Your task to perform on an android device: Open the calendar and show me this week's events? Image 0: 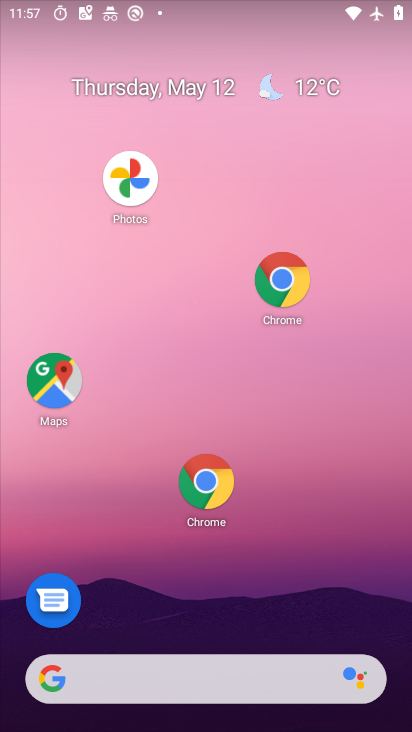
Step 0: drag from (350, 537) to (204, 75)
Your task to perform on an android device: Open the calendar and show me this week's events? Image 1: 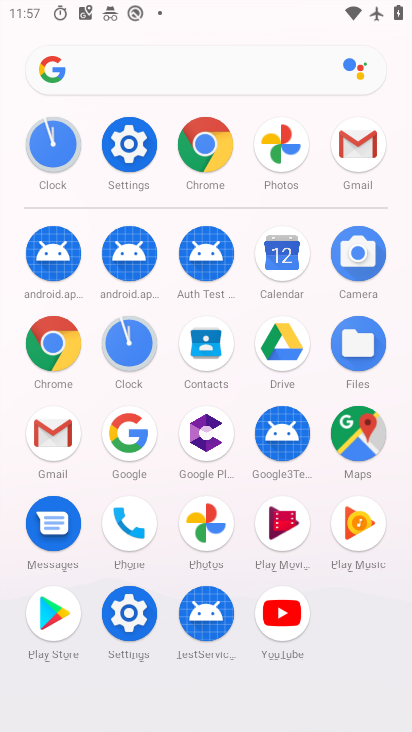
Step 1: click (269, 258)
Your task to perform on an android device: Open the calendar and show me this week's events? Image 2: 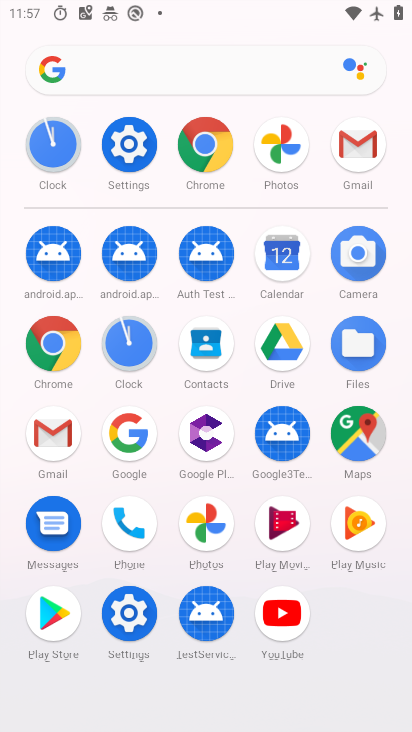
Step 2: click (270, 258)
Your task to perform on an android device: Open the calendar and show me this week's events? Image 3: 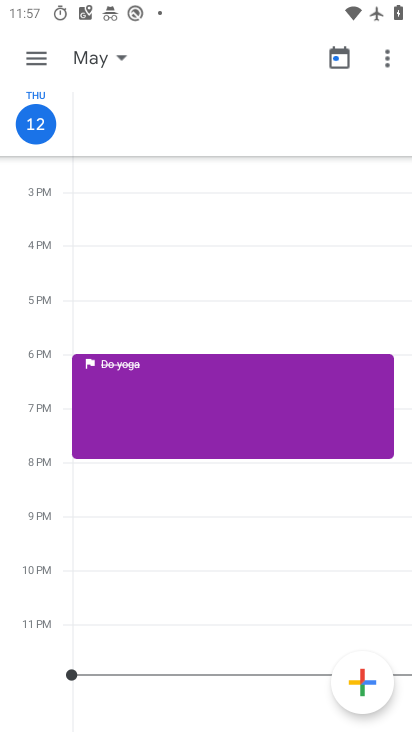
Step 3: click (116, 50)
Your task to perform on an android device: Open the calendar and show me this week's events? Image 4: 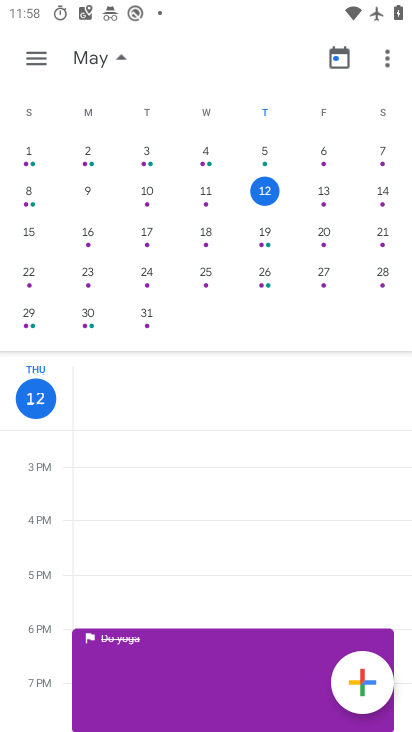
Step 4: drag from (249, 381) to (153, 48)
Your task to perform on an android device: Open the calendar and show me this week's events? Image 5: 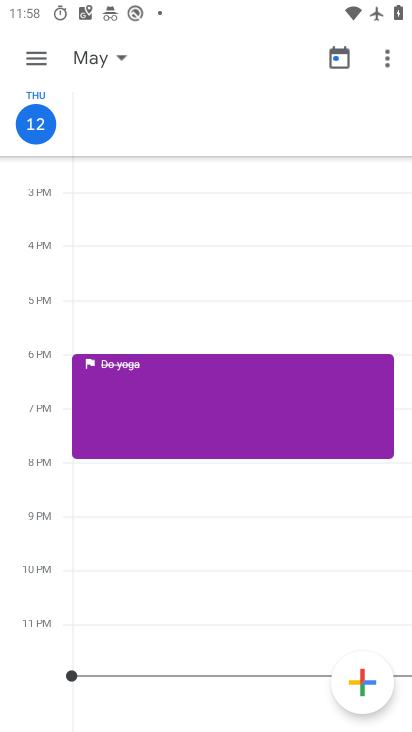
Step 5: drag from (185, 471) to (83, 100)
Your task to perform on an android device: Open the calendar and show me this week's events? Image 6: 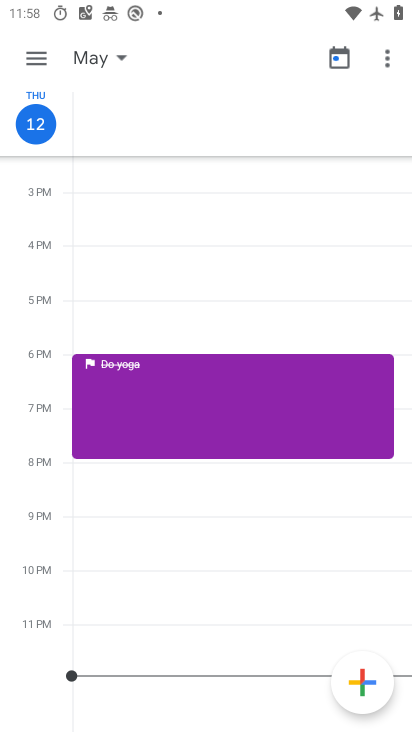
Step 6: drag from (129, 265) to (135, 537)
Your task to perform on an android device: Open the calendar and show me this week's events? Image 7: 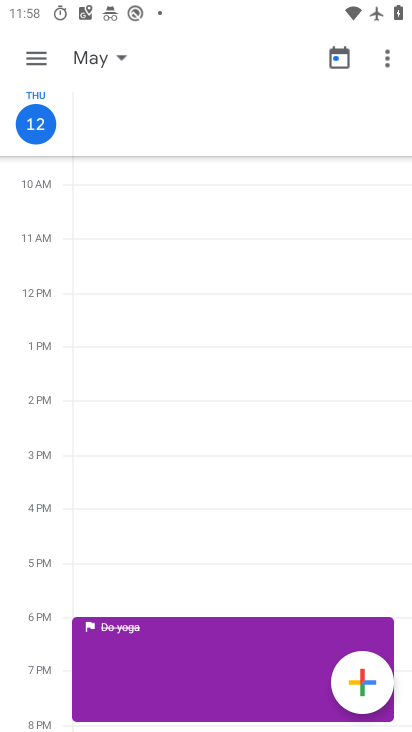
Step 7: drag from (84, 259) to (132, 570)
Your task to perform on an android device: Open the calendar and show me this week's events? Image 8: 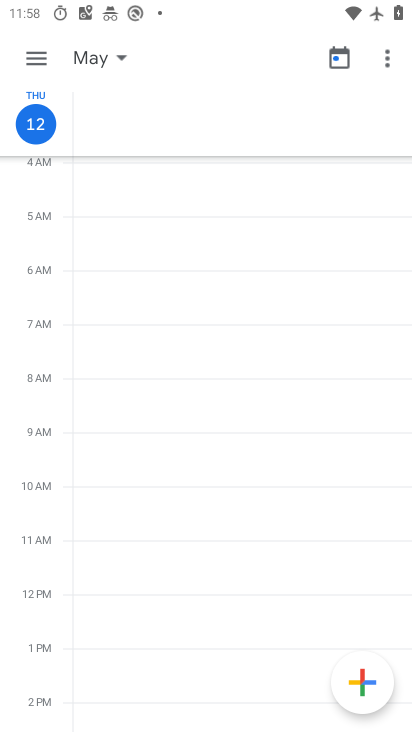
Step 8: drag from (116, 304) to (191, 583)
Your task to perform on an android device: Open the calendar and show me this week's events? Image 9: 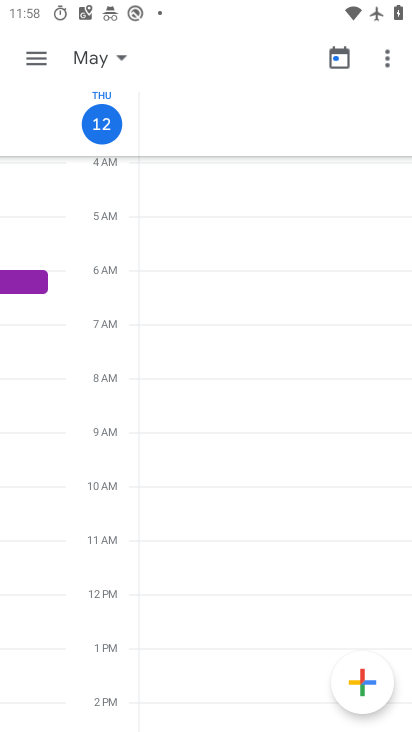
Step 9: drag from (157, 204) to (170, 559)
Your task to perform on an android device: Open the calendar and show me this week's events? Image 10: 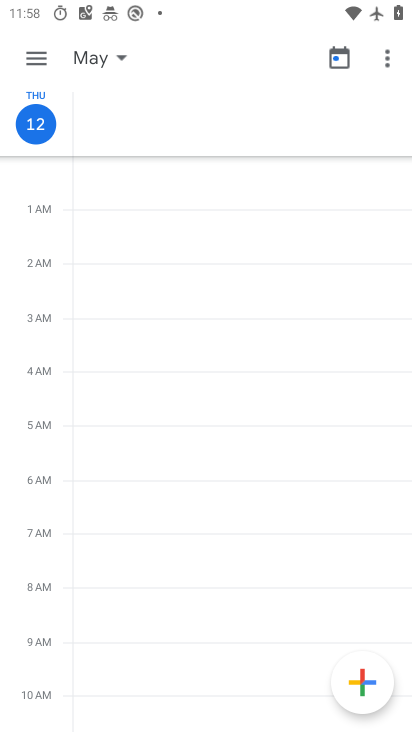
Step 10: click (44, 69)
Your task to perform on an android device: Open the calendar and show me this week's events? Image 11: 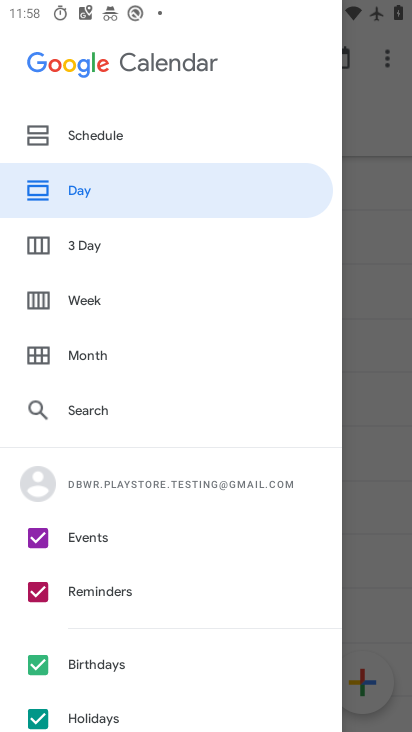
Step 11: click (106, 144)
Your task to perform on an android device: Open the calendar and show me this week's events? Image 12: 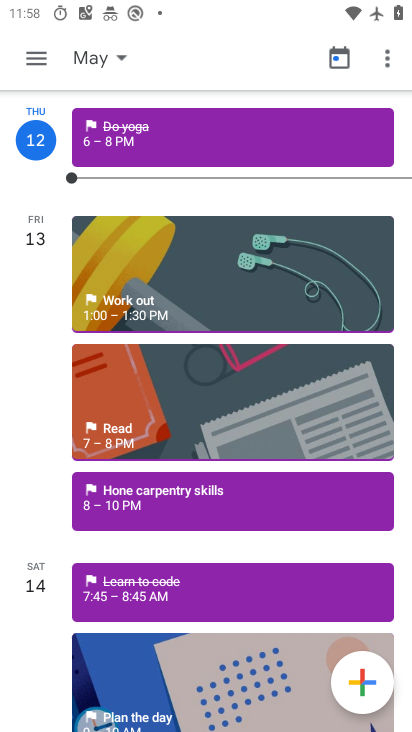
Step 12: drag from (234, 390) to (216, 97)
Your task to perform on an android device: Open the calendar and show me this week's events? Image 13: 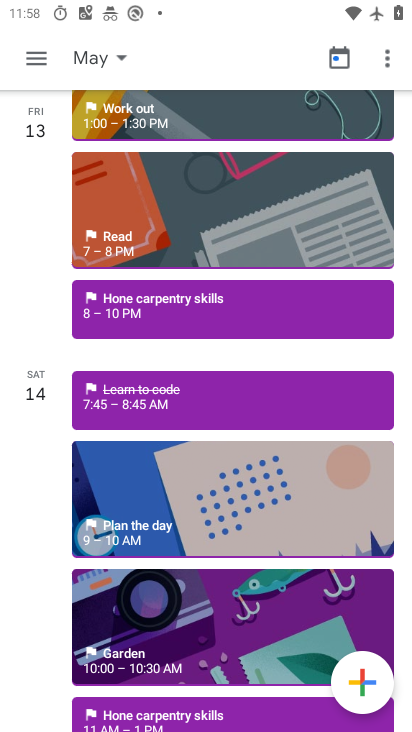
Step 13: drag from (253, 385) to (200, 115)
Your task to perform on an android device: Open the calendar and show me this week's events? Image 14: 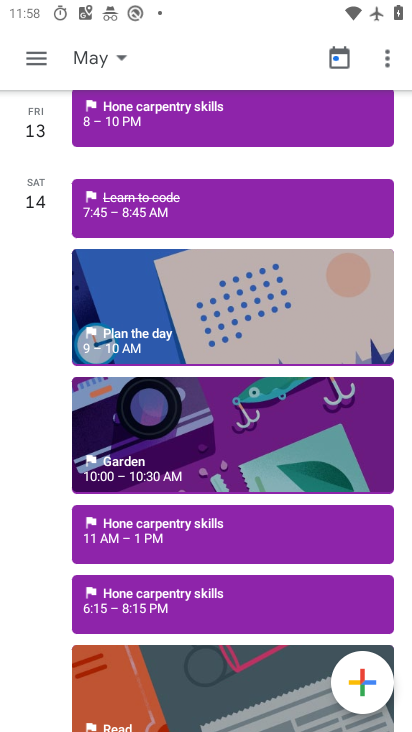
Step 14: drag from (234, 457) to (196, 21)
Your task to perform on an android device: Open the calendar and show me this week's events? Image 15: 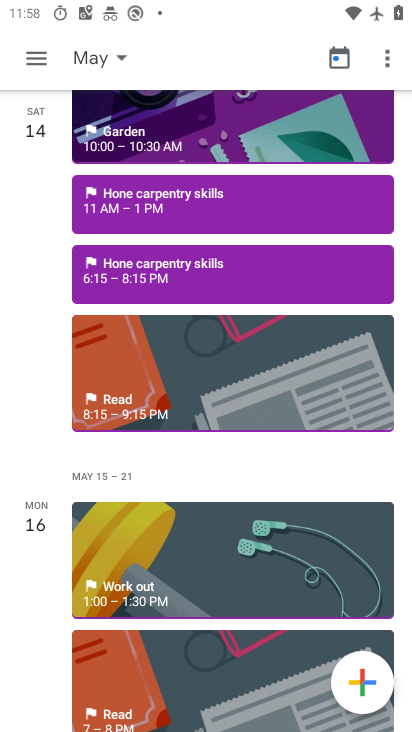
Step 15: drag from (168, 454) to (79, 6)
Your task to perform on an android device: Open the calendar and show me this week's events? Image 16: 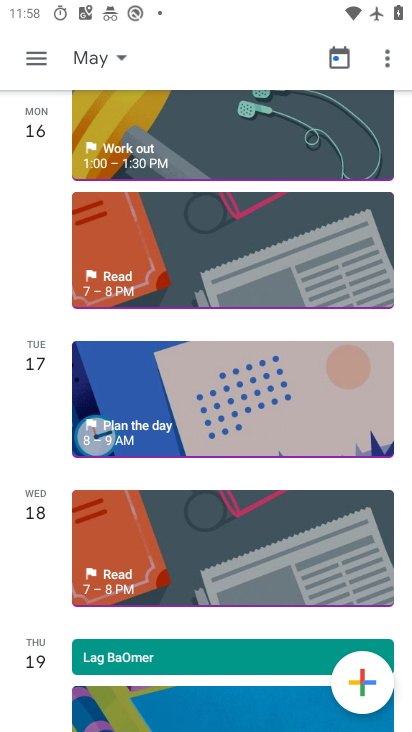
Step 16: drag from (138, 213) to (171, 630)
Your task to perform on an android device: Open the calendar and show me this week's events? Image 17: 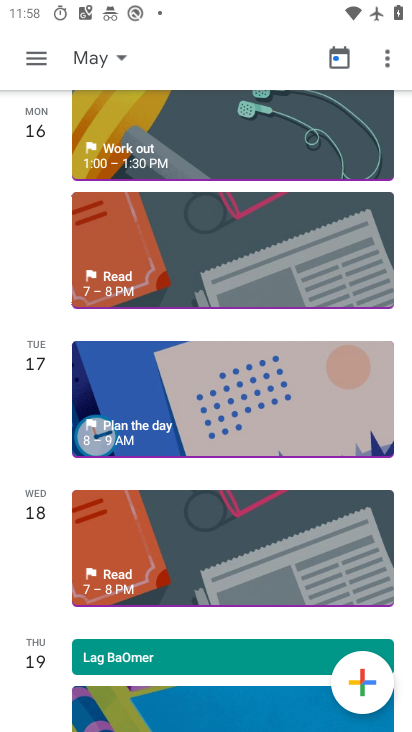
Step 17: drag from (117, 356) to (179, 720)
Your task to perform on an android device: Open the calendar and show me this week's events? Image 18: 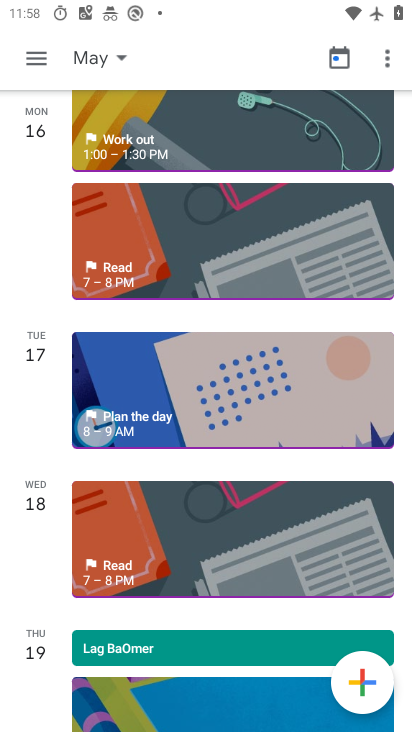
Step 18: drag from (166, 281) to (183, 403)
Your task to perform on an android device: Open the calendar and show me this week's events? Image 19: 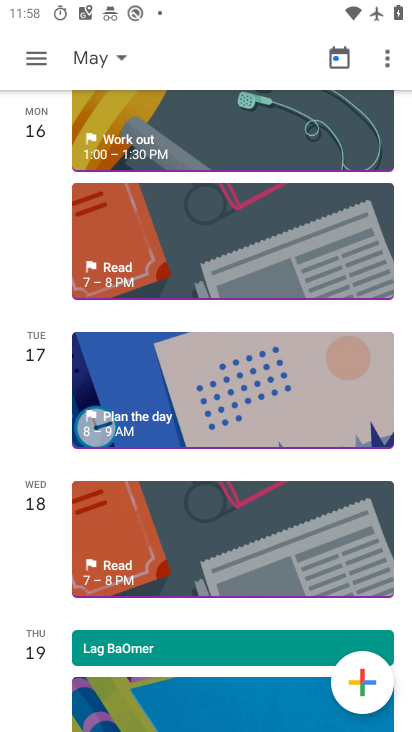
Step 19: drag from (149, 204) to (149, 451)
Your task to perform on an android device: Open the calendar and show me this week's events? Image 20: 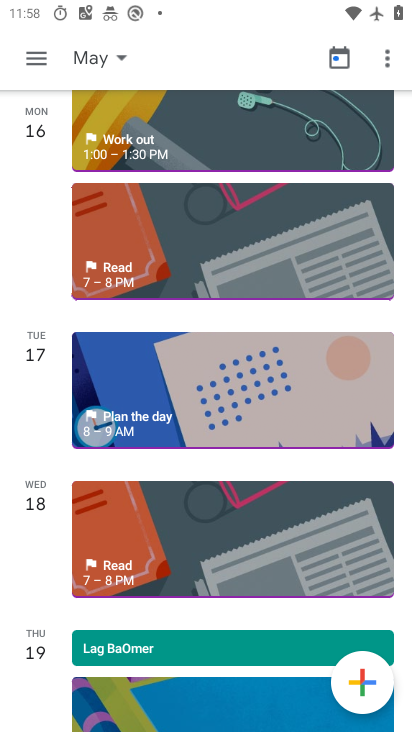
Step 20: drag from (115, 245) to (129, 326)
Your task to perform on an android device: Open the calendar and show me this week's events? Image 21: 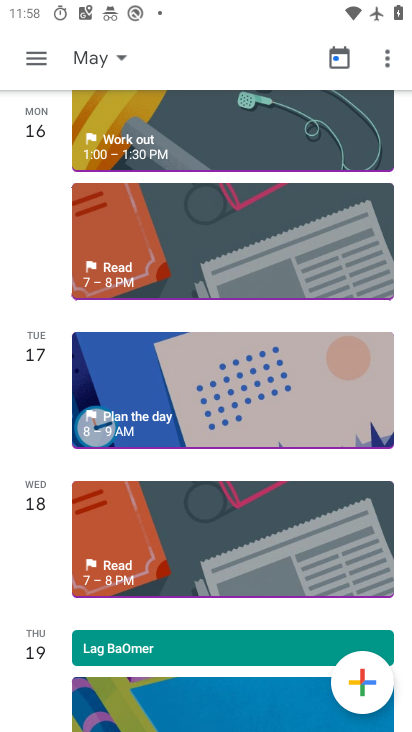
Step 21: drag from (121, 226) to (203, 472)
Your task to perform on an android device: Open the calendar and show me this week's events? Image 22: 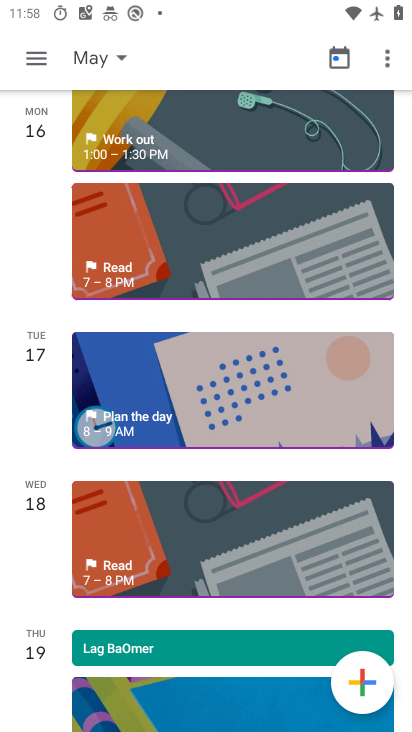
Step 22: click (195, 435)
Your task to perform on an android device: Open the calendar and show me this week's events? Image 23: 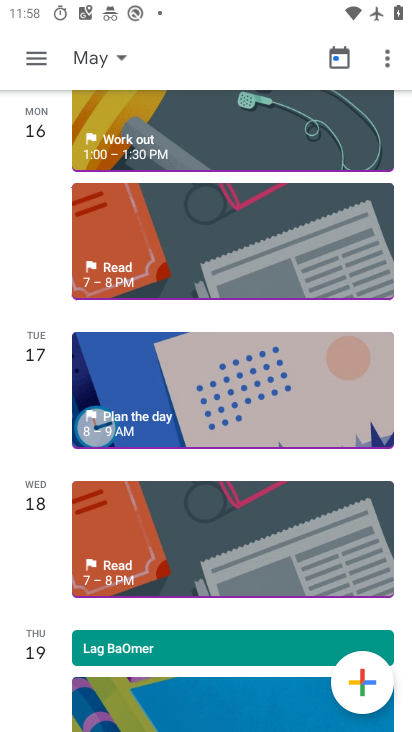
Step 23: drag from (165, 226) to (185, 387)
Your task to perform on an android device: Open the calendar and show me this week's events? Image 24: 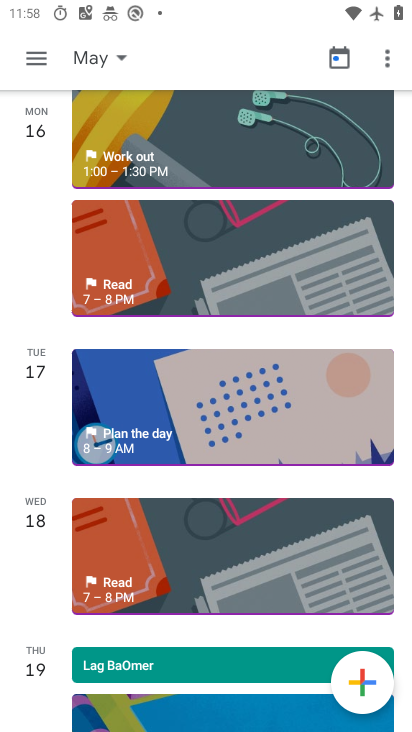
Step 24: drag from (206, 213) to (206, 278)
Your task to perform on an android device: Open the calendar and show me this week's events? Image 25: 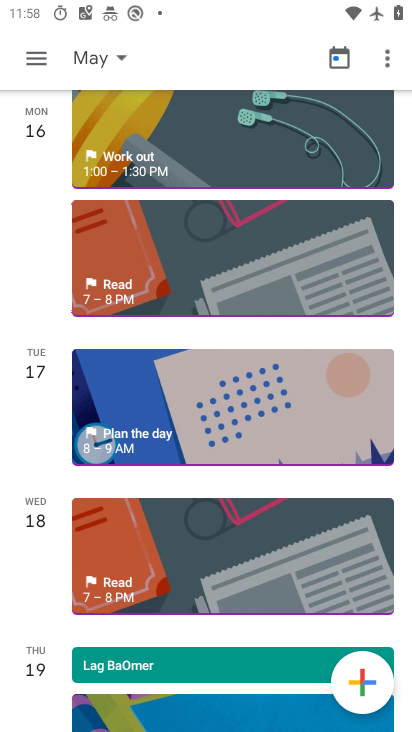
Step 25: drag from (200, 82) to (203, 341)
Your task to perform on an android device: Open the calendar and show me this week's events? Image 26: 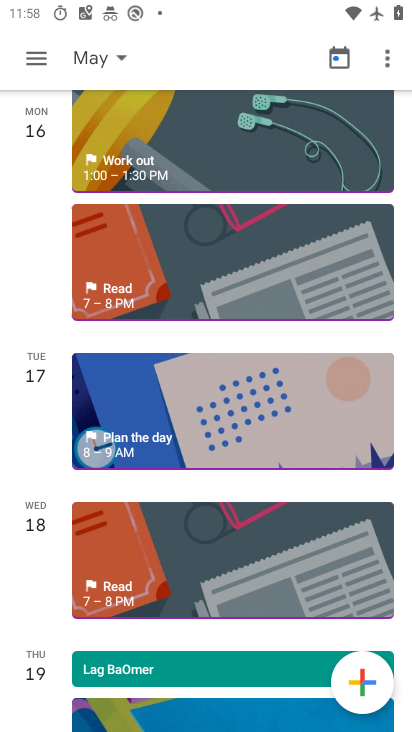
Step 26: drag from (177, 220) to (182, 420)
Your task to perform on an android device: Open the calendar and show me this week's events? Image 27: 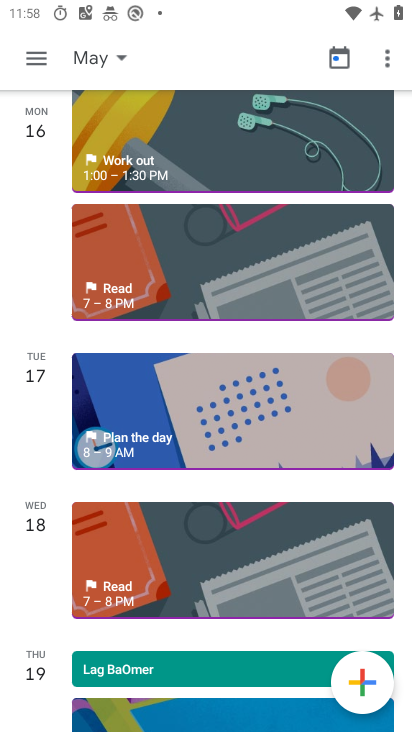
Step 27: drag from (150, 274) to (167, 514)
Your task to perform on an android device: Open the calendar and show me this week's events? Image 28: 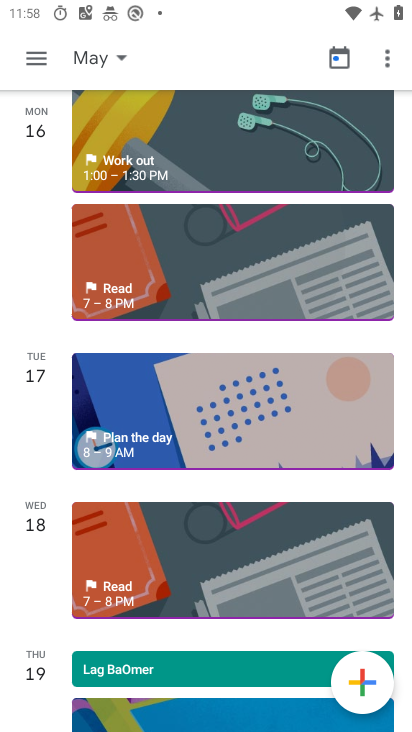
Step 28: drag from (167, 285) to (229, 680)
Your task to perform on an android device: Open the calendar and show me this week's events? Image 29: 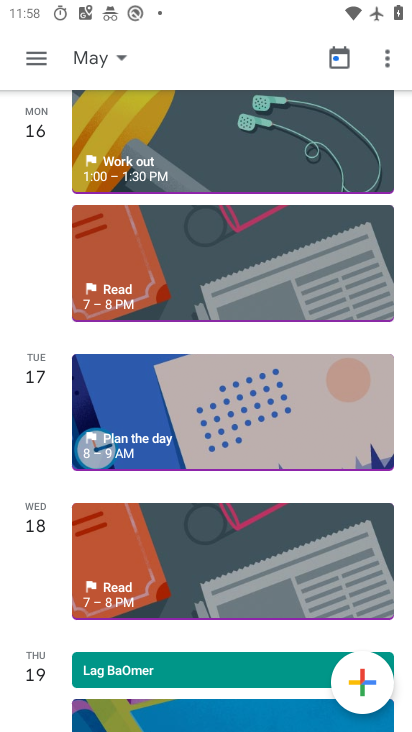
Step 29: drag from (245, 243) to (255, 504)
Your task to perform on an android device: Open the calendar and show me this week's events? Image 30: 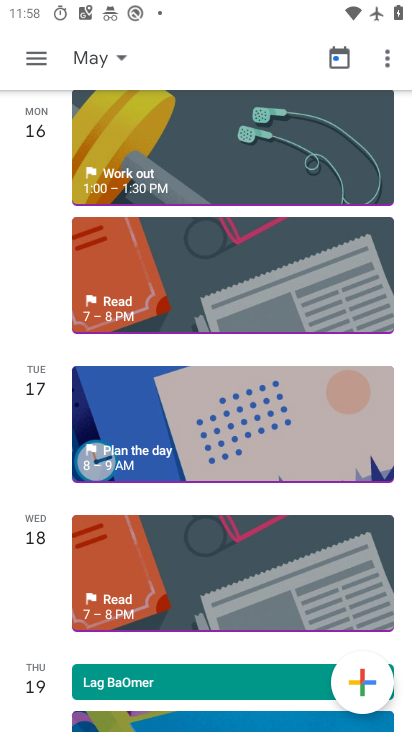
Step 30: drag from (176, 261) to (260, 495)
Your task to perform on an android device: Open the calendar and show me this week's events? Image 31: 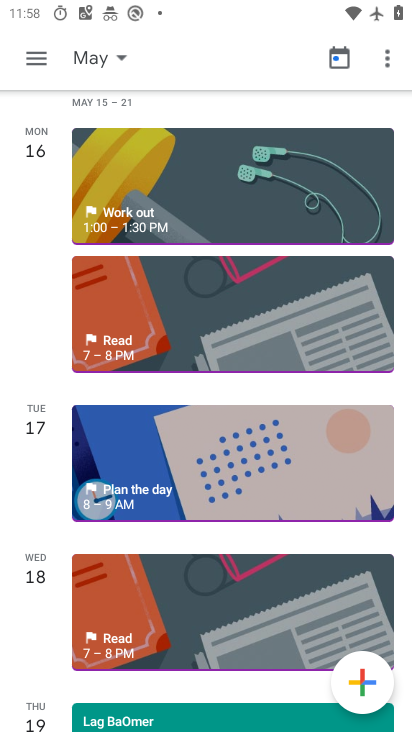
Step 31: drag from (227, 185) to (235, 525)
Your task to perform on an android device: Open the calendar and show me this week's events? Image 32: 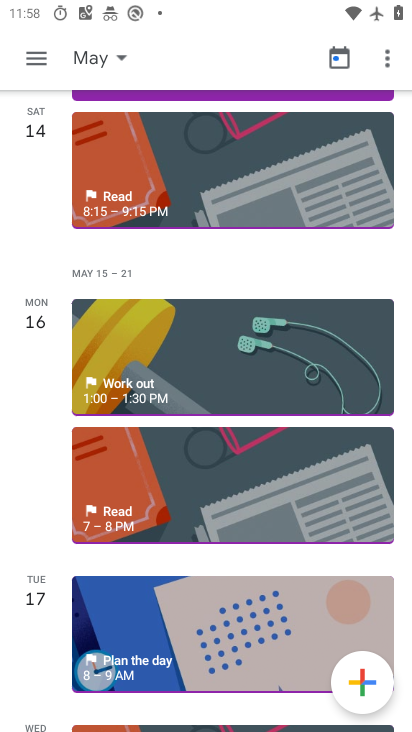
Step 32: drag from (189, 182) to (204, 555)
Your task to perform on an android device: Open the calendar and show me this week's events? Image 33: 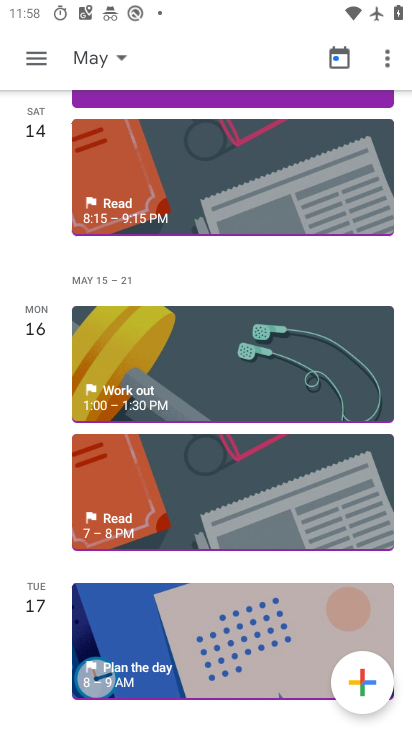
Step 33: drag from (89, 207) to (175, 629)
Your task to perform on an android device: Open the calendar and show me this week's events? Image 34: 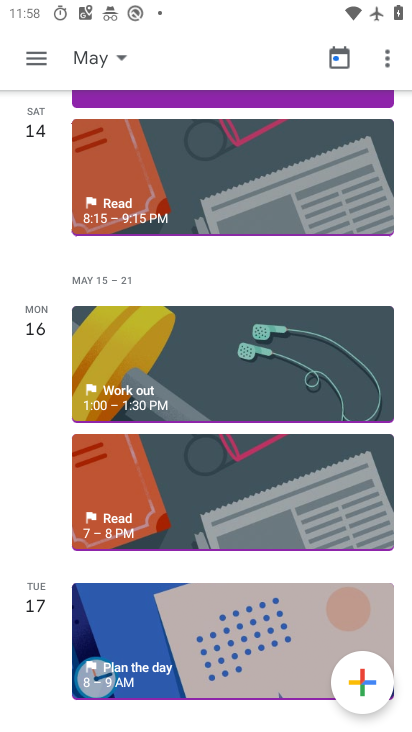
Step 34: drag from (125, 273) to (135, 584)
Your task to perform on an android device: Open the calendar and show me this week's events? Image 35: 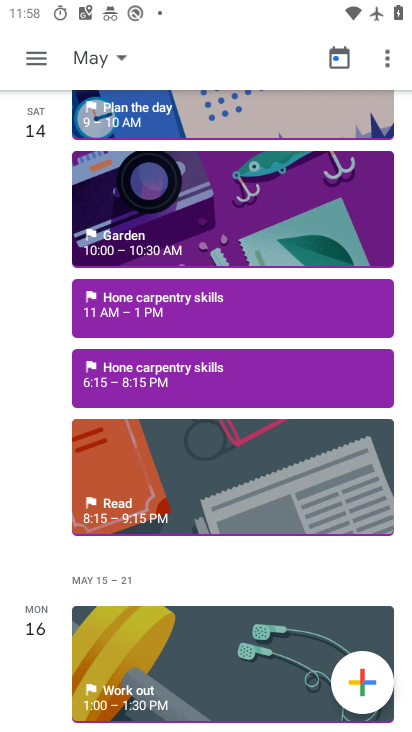
Step 35: drag from (203, 415) to (228, 641)
Your task to perform on an android device: Open the calendar and show me this week's events? Image 36: 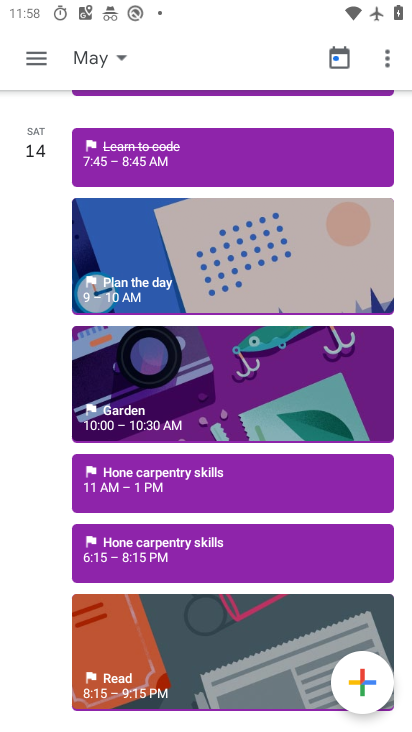
Step 36: drag from (203, 507) to (237, 729)
Your task to perform on an android device: Open the calendar and show me this week's events? Image 37: 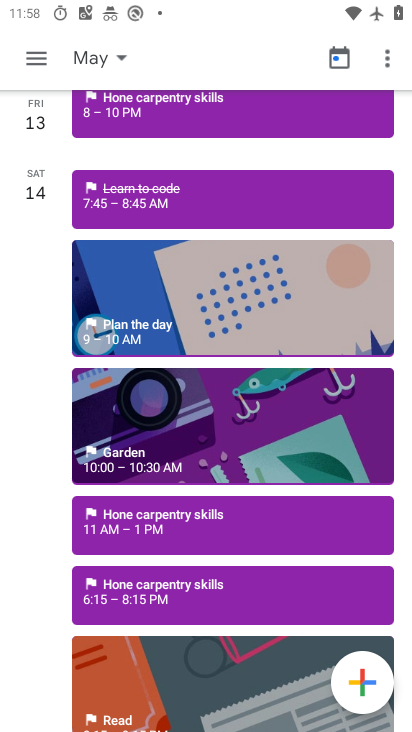
Step 37: click (178, 197)
Your task to perform on an android device: Open the calendar and show me this week's events? Image 38: 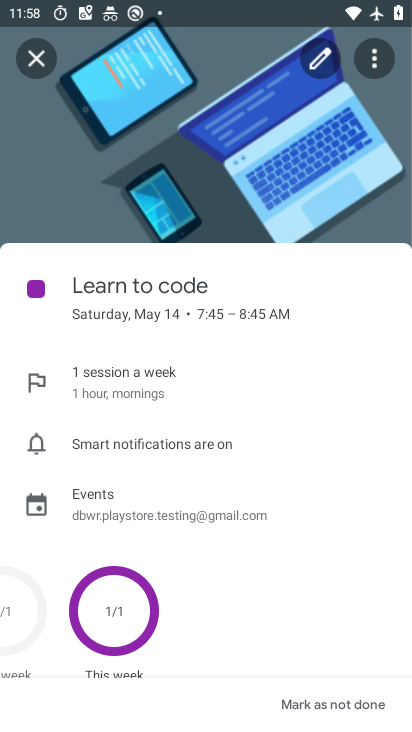
Step 38: task complete